Your task to perform on an android device: Open Chrome and go to settings Image 0: 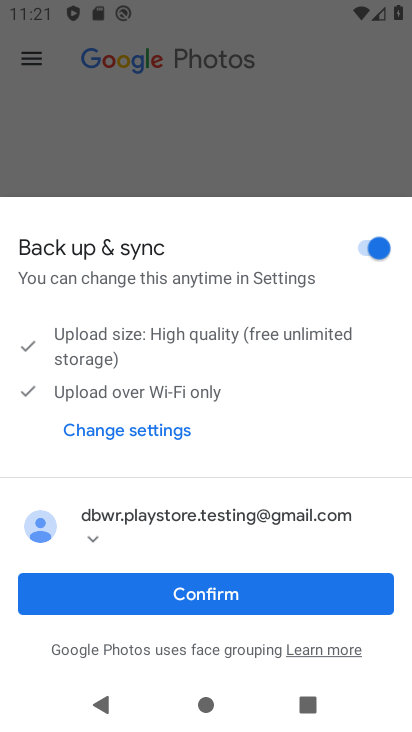
Step 0: click (283, 599)
Your task to perform on an android device: Open Chrome and go to settings Image 1: 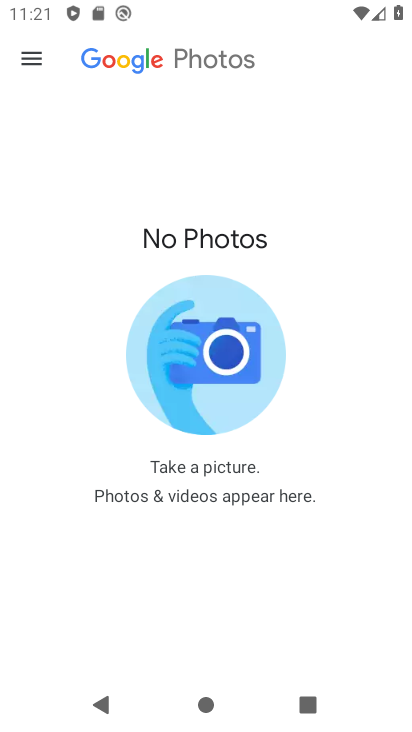
Step 1: press home button
Your task to perform on an android device: Open Chrome and go to settings Image 2: 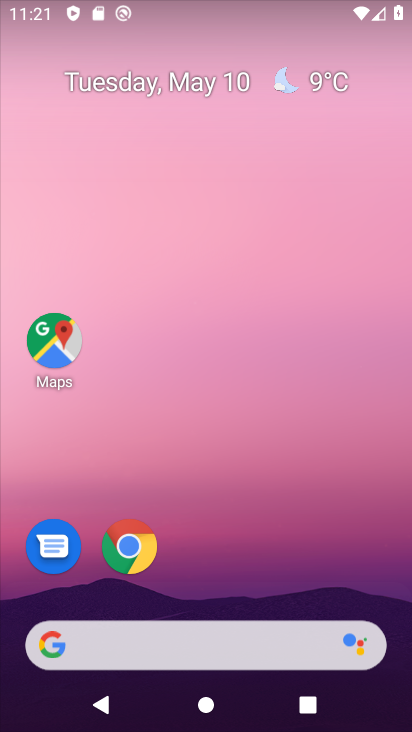
Step 2: click (154, 543)
Your task to perform on an android device: Open Chrome and go to settings Image 3: 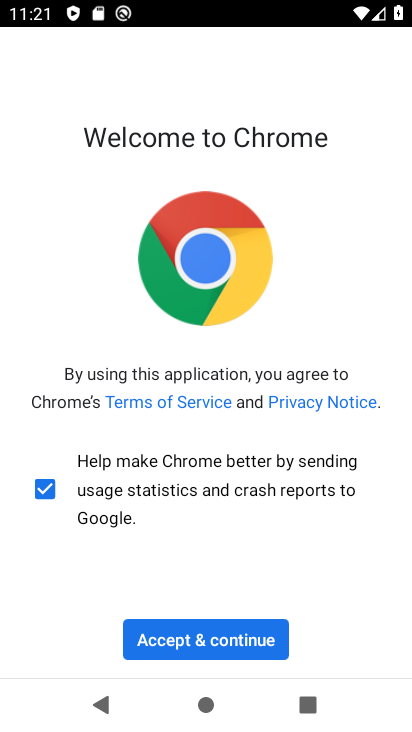
Step 3: click (223, 631)
Your task to perform on an android device: Open Chrome and go to settings Image 4: 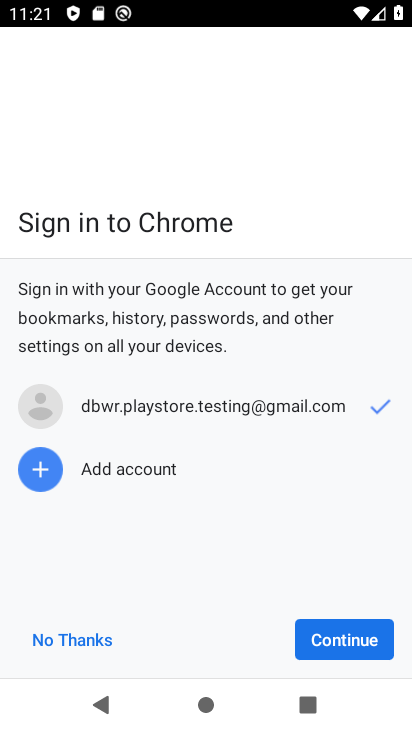
Step 4: click (343, 643)
Your task to perform on an android device: Open Chrome and go to settings Image 5: 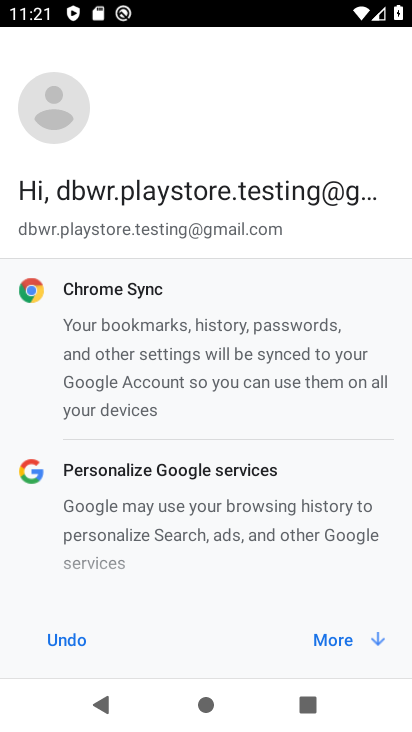
Step 5: click (334, 637)
Your task to perform on an android device: Open Chrome and go to settings Image 6: 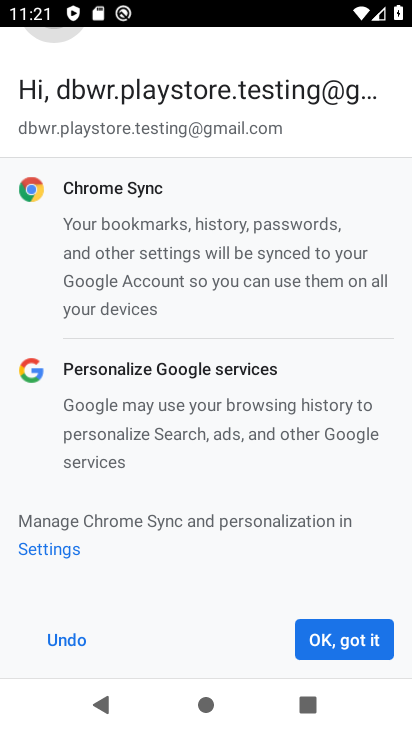
Step 6: click (336, 636)
Your task to perform on an android device: Open Chrome and go to settings Image 7: 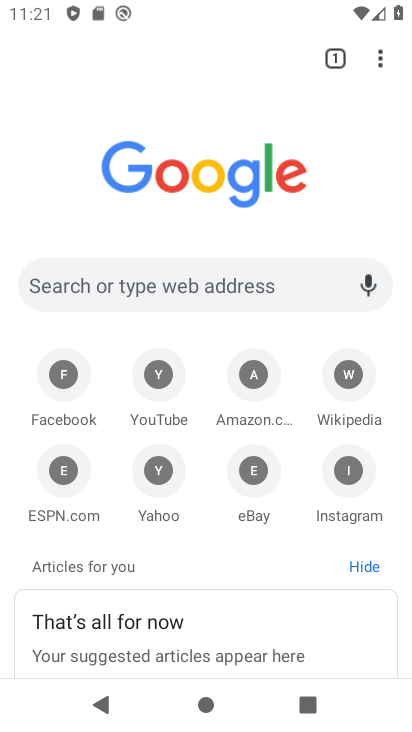
Step 7: task complete